Your task to perform on an android device: Open Wikipedia Image 0: 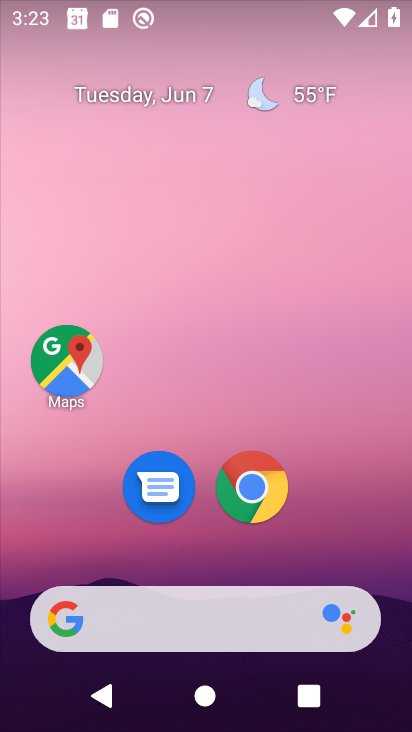
Step 0: drag from (309, 548) to (275, 39)
Your task to perform on an android device: Open Wikipedia Image 1: 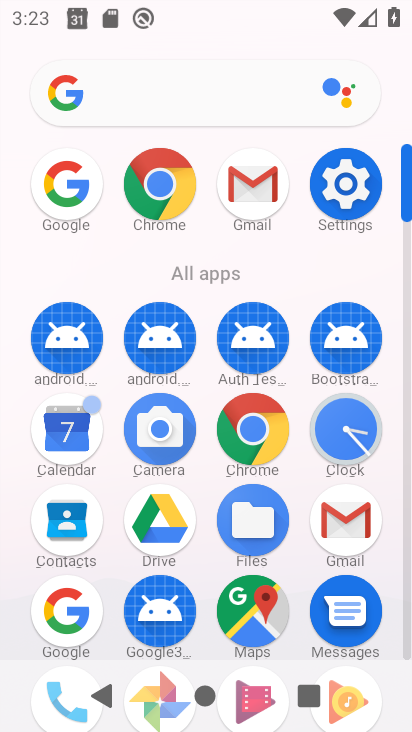
Step 1: click (168, 181)
Your task to perform on an android device: Open Wikipedia Image 2: 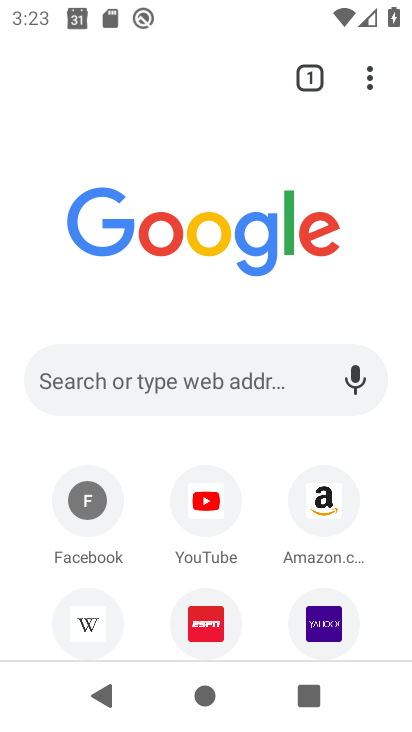
Step 2: click (88, 617)
Your task to perform on an android device: Open Wikipedia Image 3: 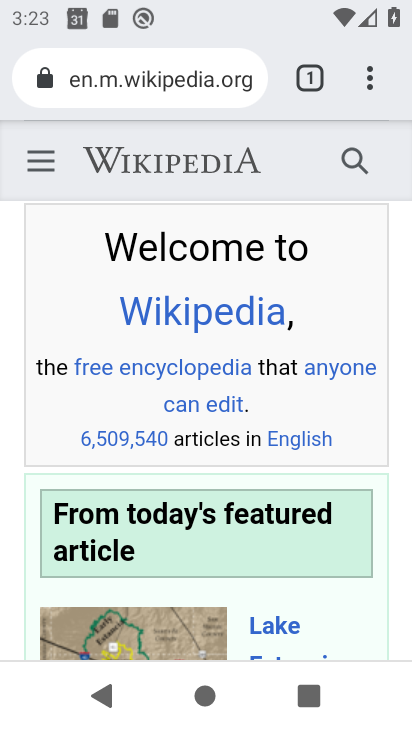
Step 3: task complete